Your task to perform on an android device: refresh tabs in the chrome app Image 0: 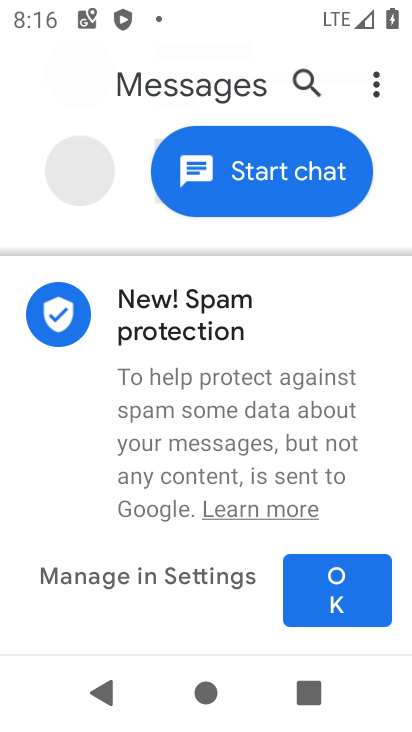
Step 0: press home button
Your task to perform on an android device: refresh tabs in the chrome app Image 1: 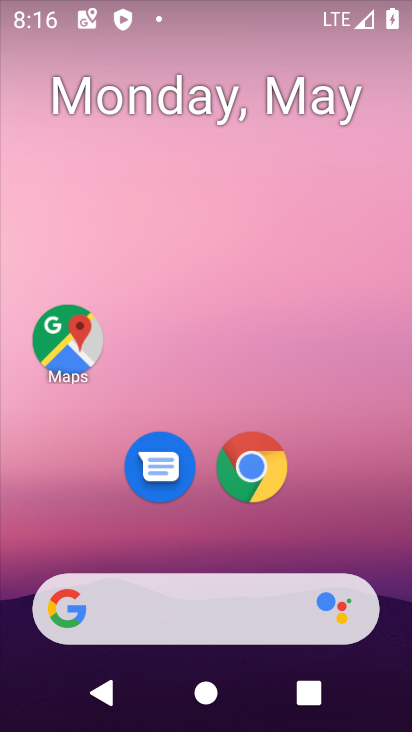
Step 1: click (257, 474)
Your task to perform on an android device: refresh tabs in the chrome app Image 2: 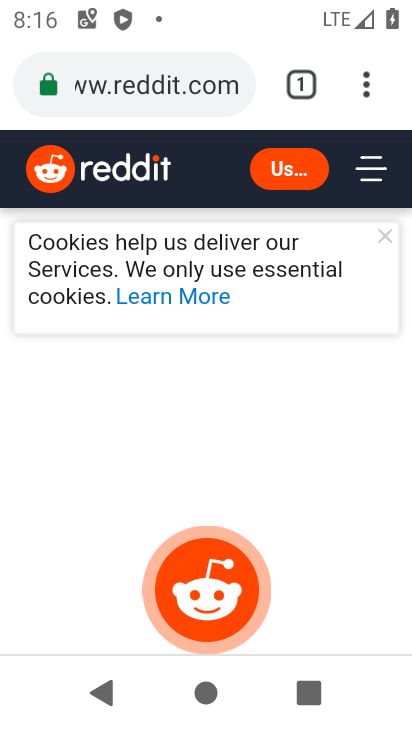
Step 2: click (366, 87)
Your task to perform on an android device: refresh tabs in the chrome app Image 3: 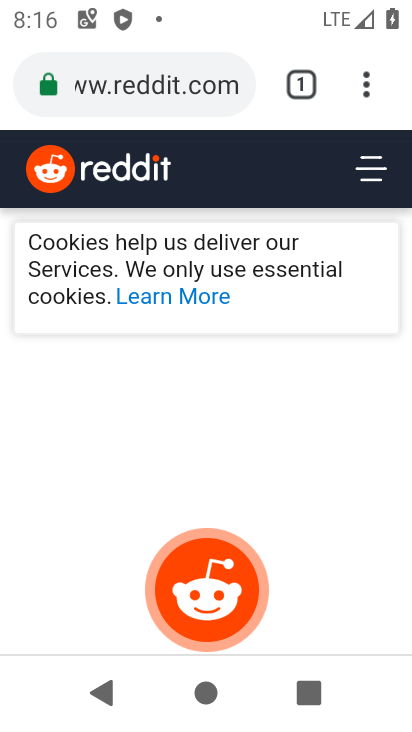
Step 3: click (366, 80)
Your task to perform on an android device: refresh tabs in the chrome app Image 4: 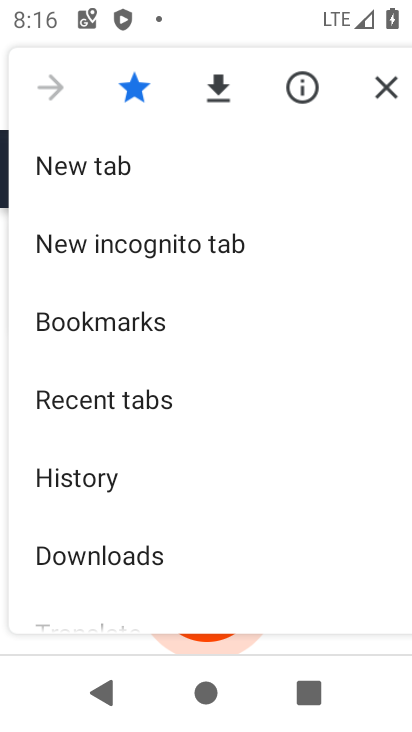
Step 4: click (380, 88)
Your task to perform on an android device: refresh tabs in the chrome app Image 5: 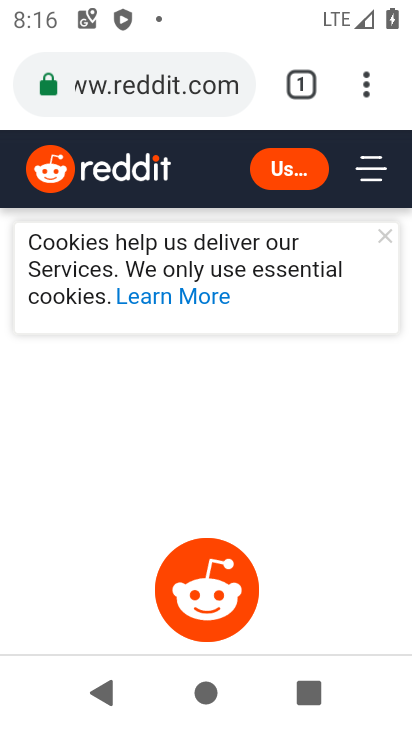
Step 5: task complete